Your task to perform on an android device: turn off location Image 0: 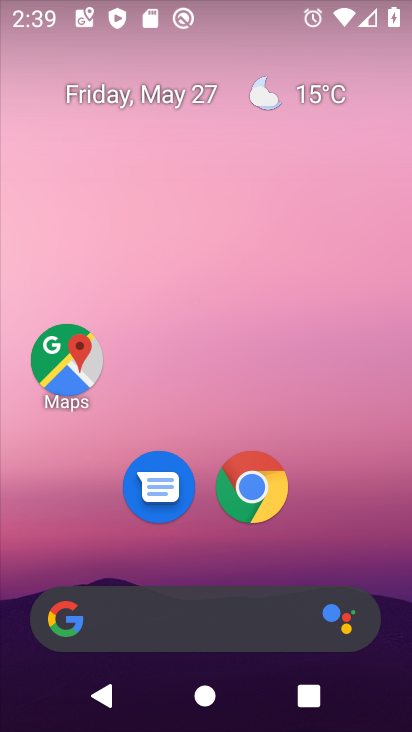
Step 0: drag from (201, 547) to (213, 45)
Your task to perform on an android device: turn off location Image 1: 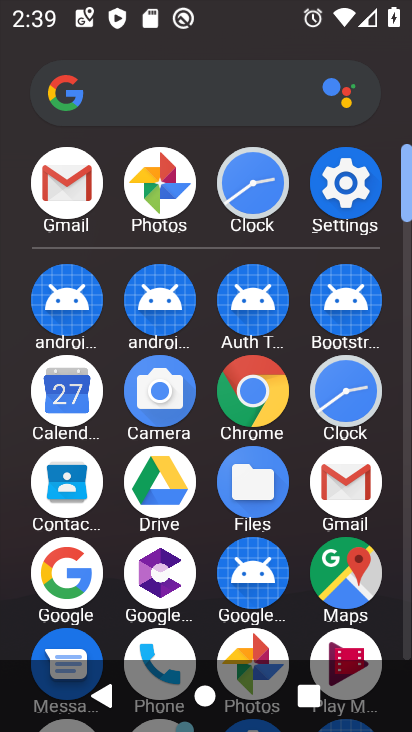
Step 1: click (338, 210)
Your task to perform on an android device: turn off location Image 2: 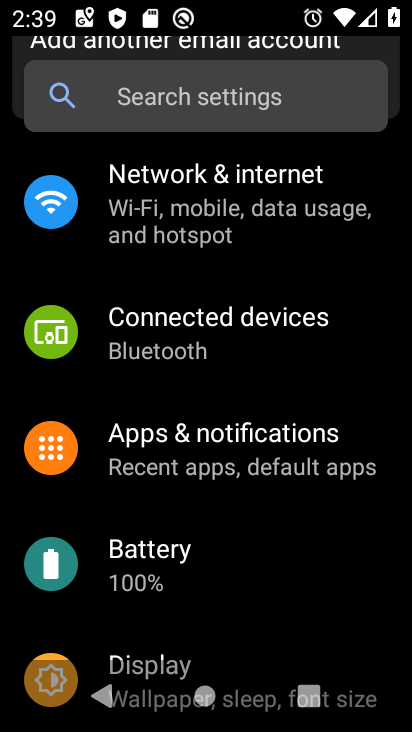
Step 2: drag from (151, 532) to (214, 121)
Your task to perform on an android device: turn off location Image 3: 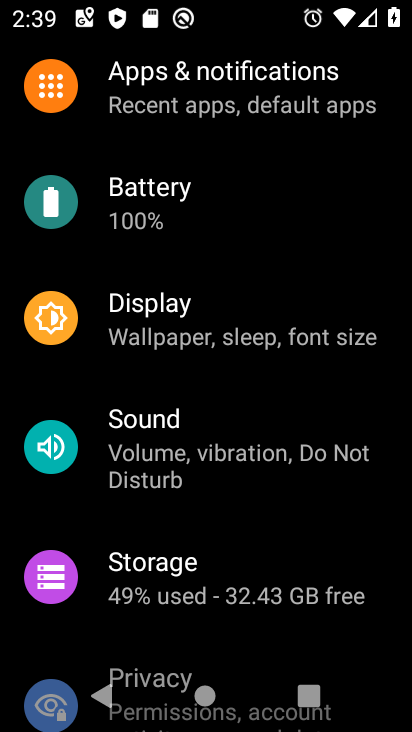
Step 3: drag from (104, 551) to (193, 29)
Your task to perform on an android device: turn off location Image 4: 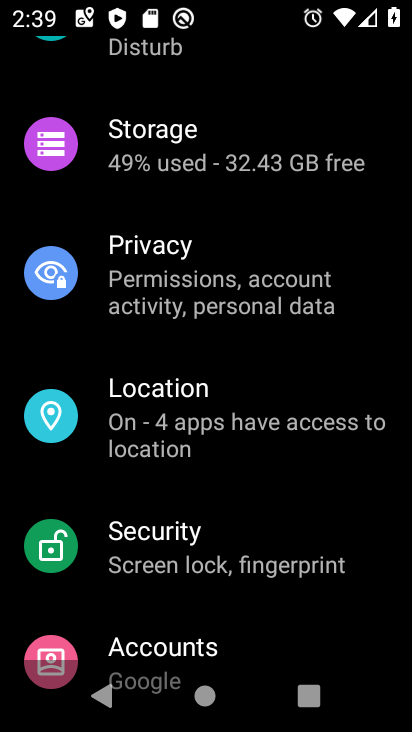
Step 4: click (176, 413)
Your task to perform on an android device: turn off location Image 5: 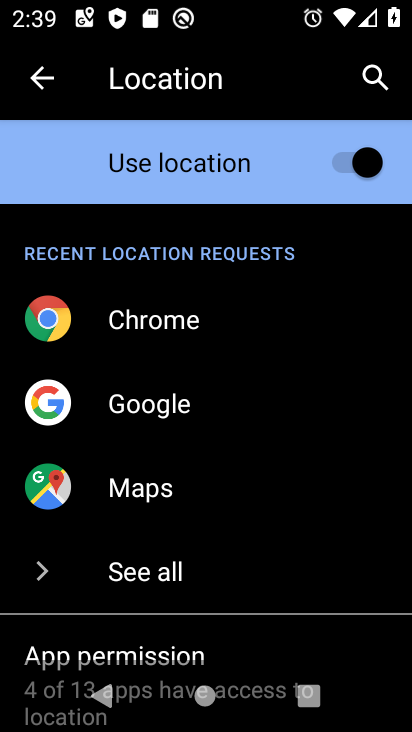
Step 5: click (354, 161)
Your task to perform on an android device: turn off location Image 6: 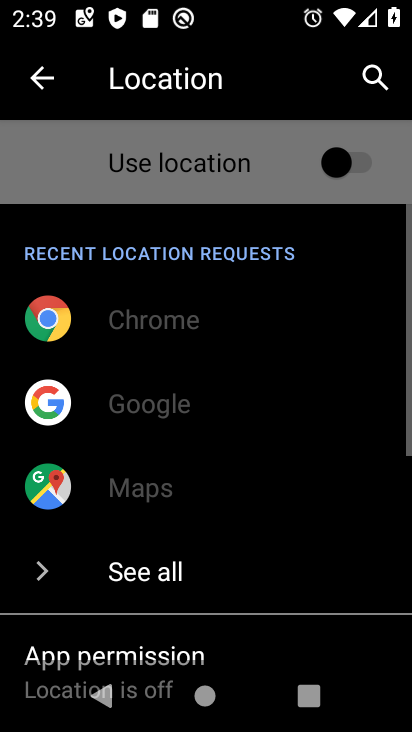
Step 6: task complete